Your task to perform on an android device: star an email in the gmail app Image 0: 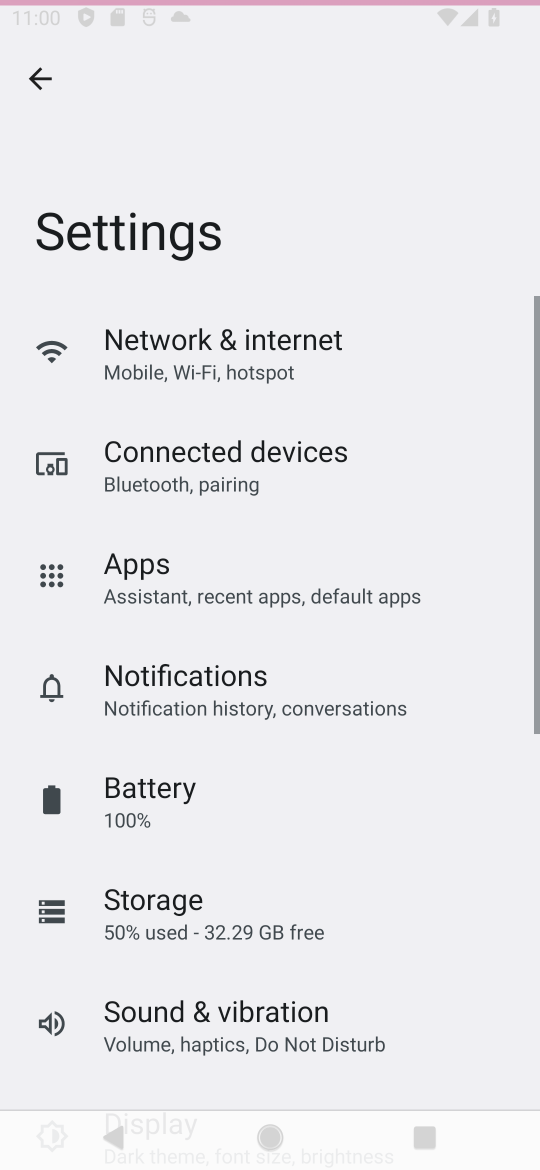
Step 0: press home button
Your task to perform on an android device: star an email in the gmail app Image 1: 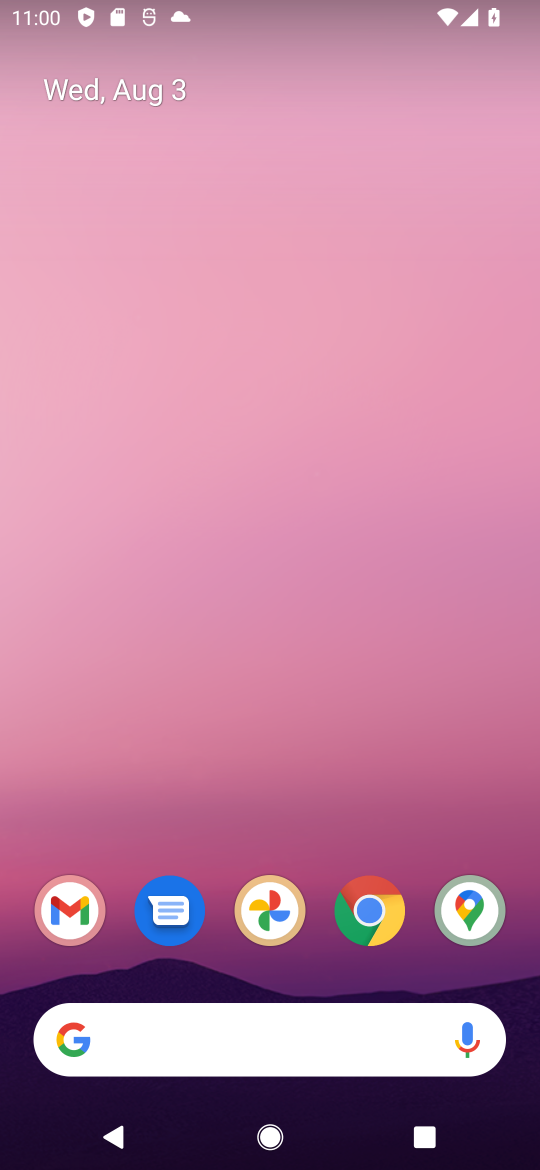
Step 1: click (64, 904)
Your task to perform on an android device: star an email in the gmail app Image 2: 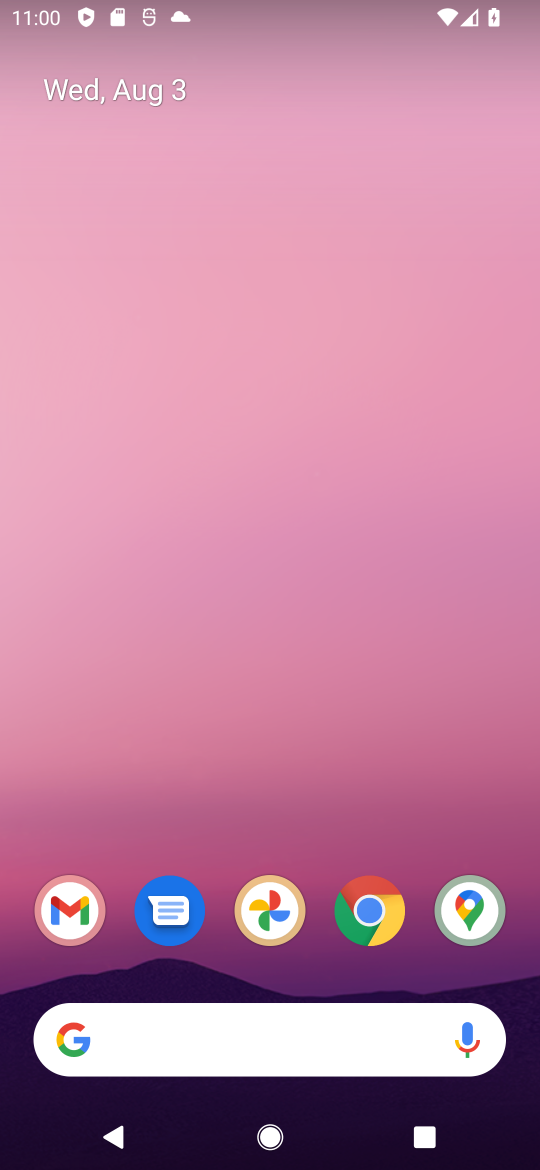
Step 2: click (70, 894)
Your task to perform on an android device: star an email in the gmail app Image 3: 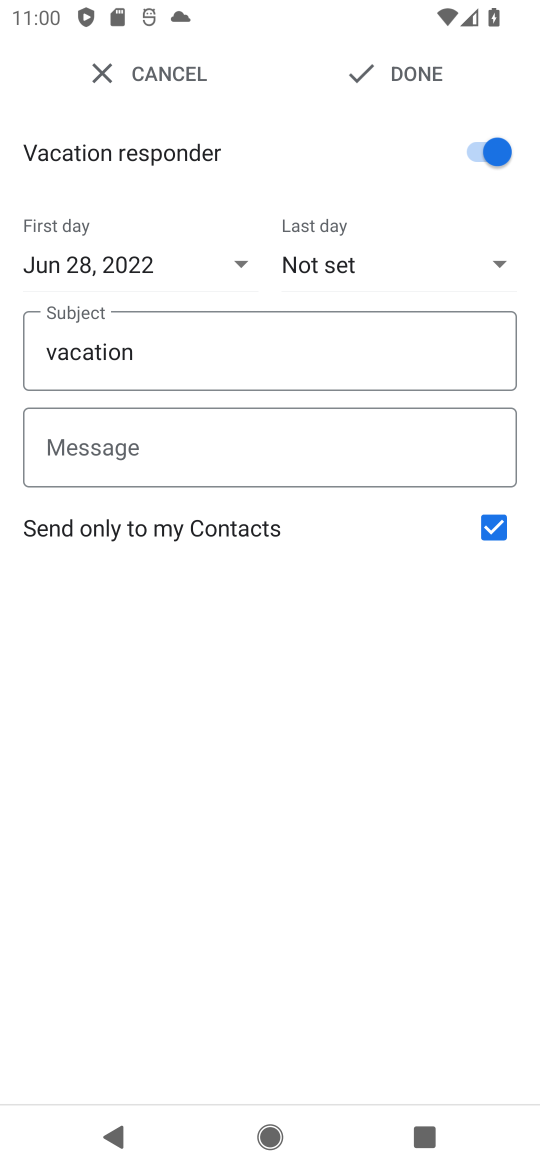
Step 3: press home button
Your task to perform on an android device: star an email in the gmail app Image 4: 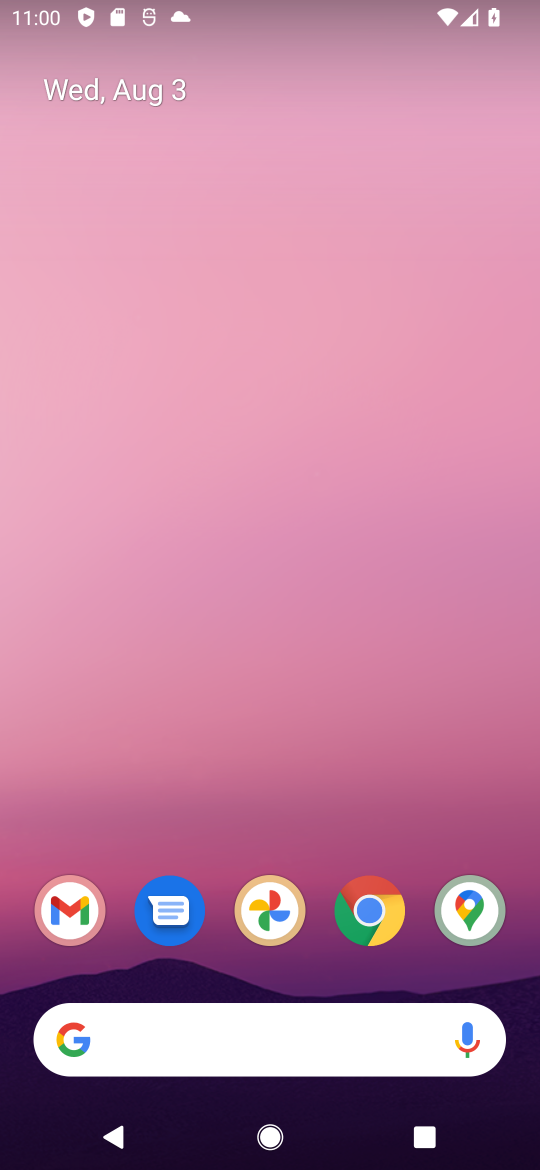
Step 4: click (61, 907)
Your task to perform on an android device: star an email in the gmail app Image 5: 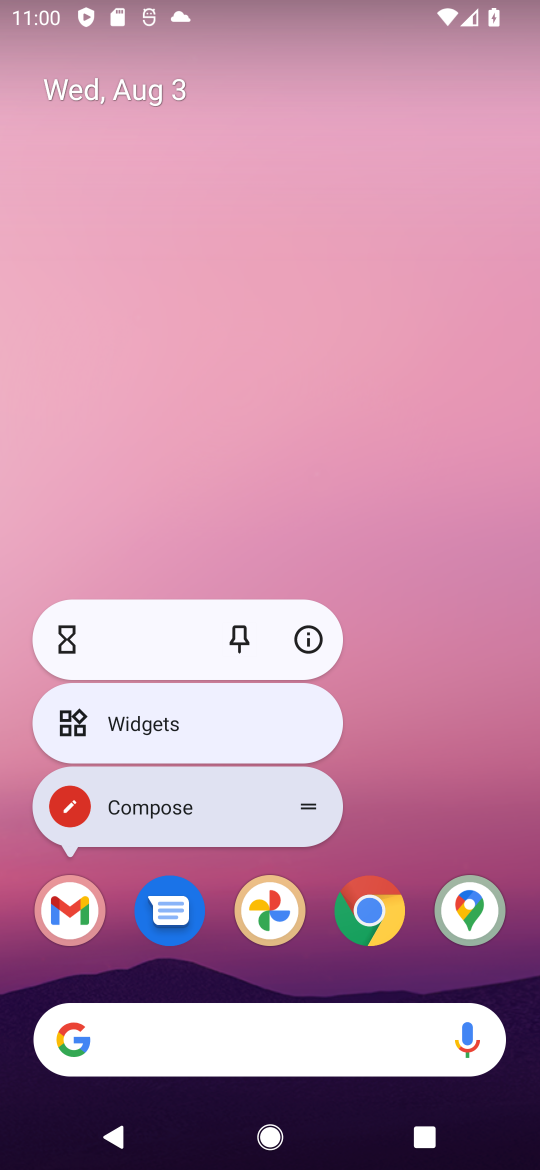
Step 5: click (82, 874)
Your task to perform on an android device: star an email in the gmail app Image 6: 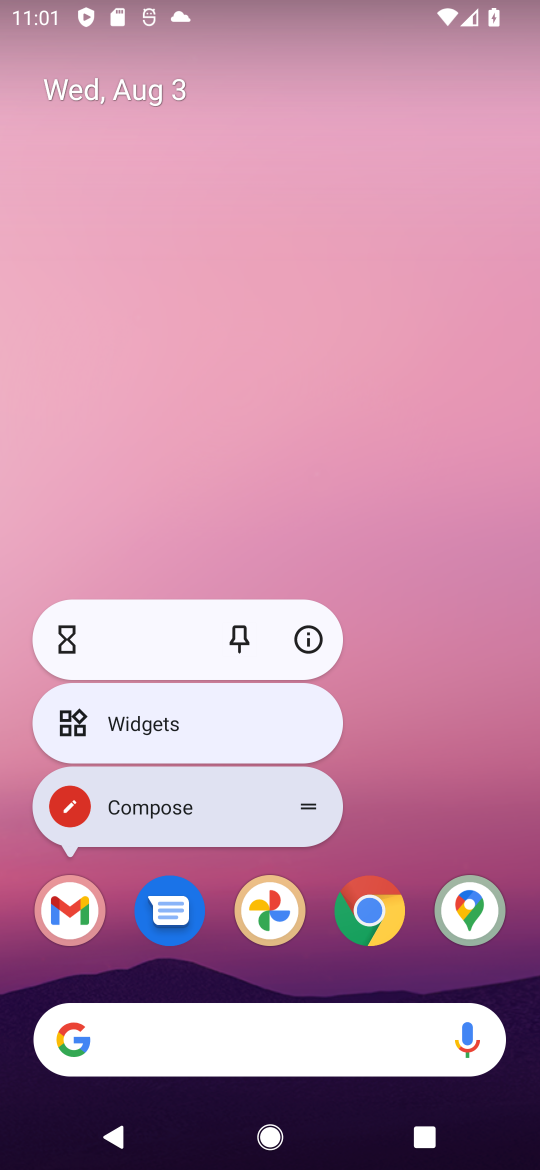
Step 6: click (72, 908)
Your task to perform on an android device: star an email in the gmail app Image 7: 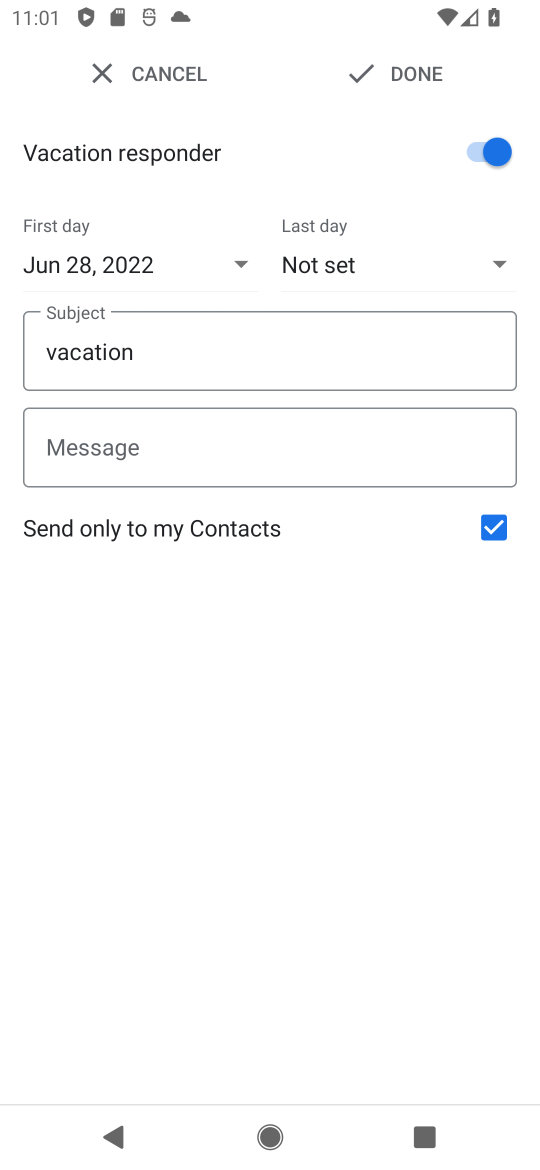
Step 7: press back button
Your task to perform on an android device: star an email in the gmail app Image 8: 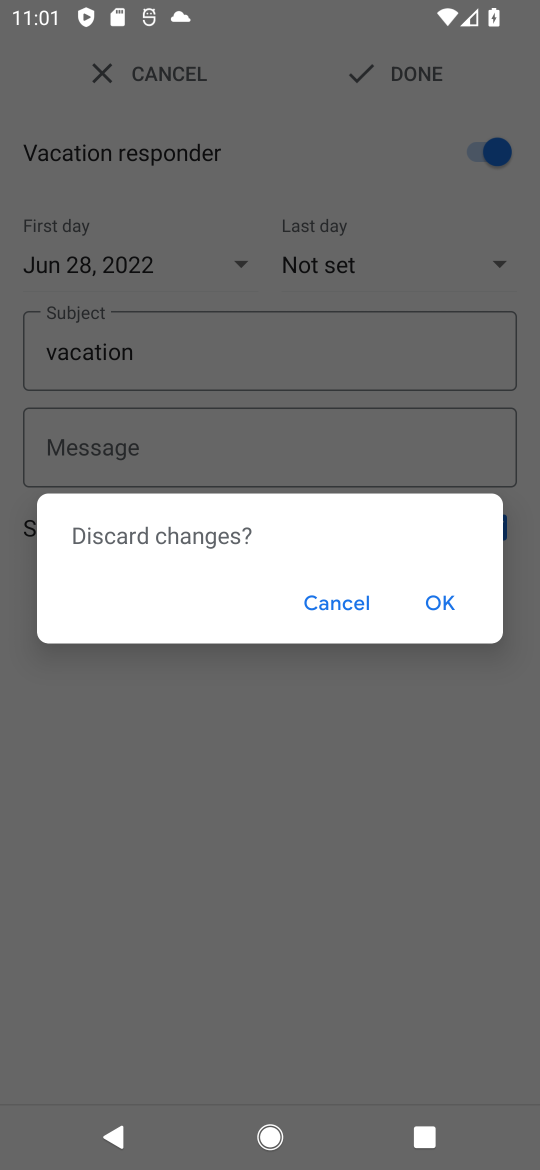
Step 8: click (446, 603)
Your task to perform on an android device: star an email in the gmail app Image 9: 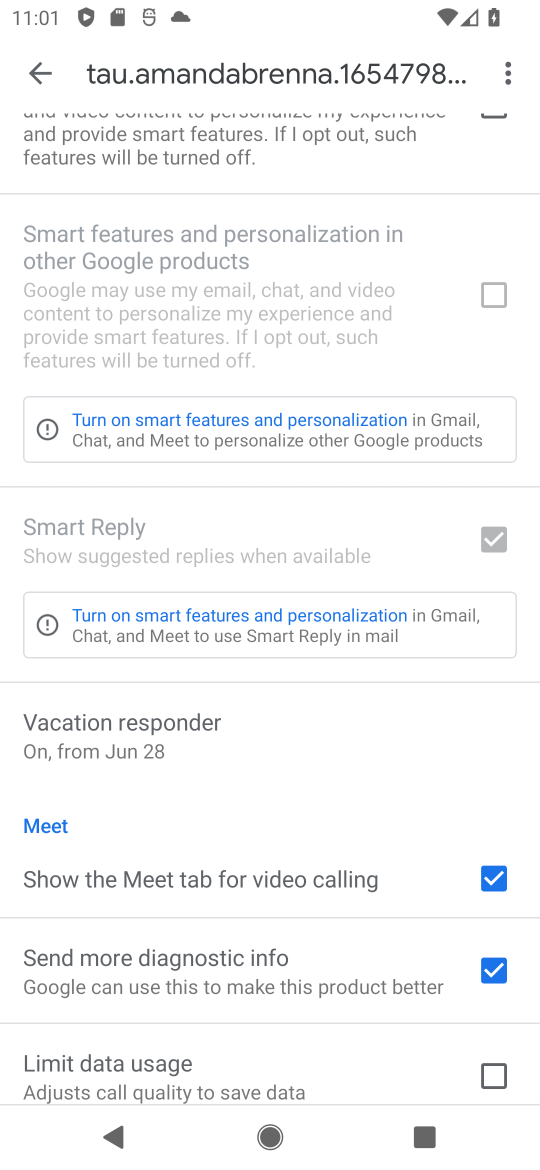
Step 9: click (37, 76)
Your task to perform on an android device: star an email in the gmail app Image 10: 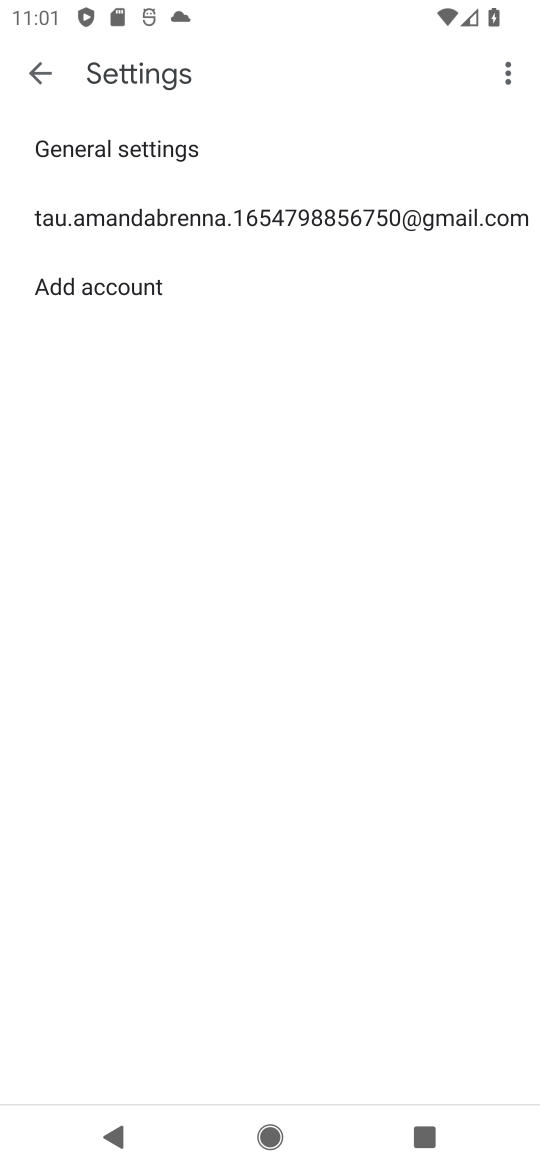
Step 10: click (37, 76)
Your task to perform on an android device: star an email in the gmail app Image 11: 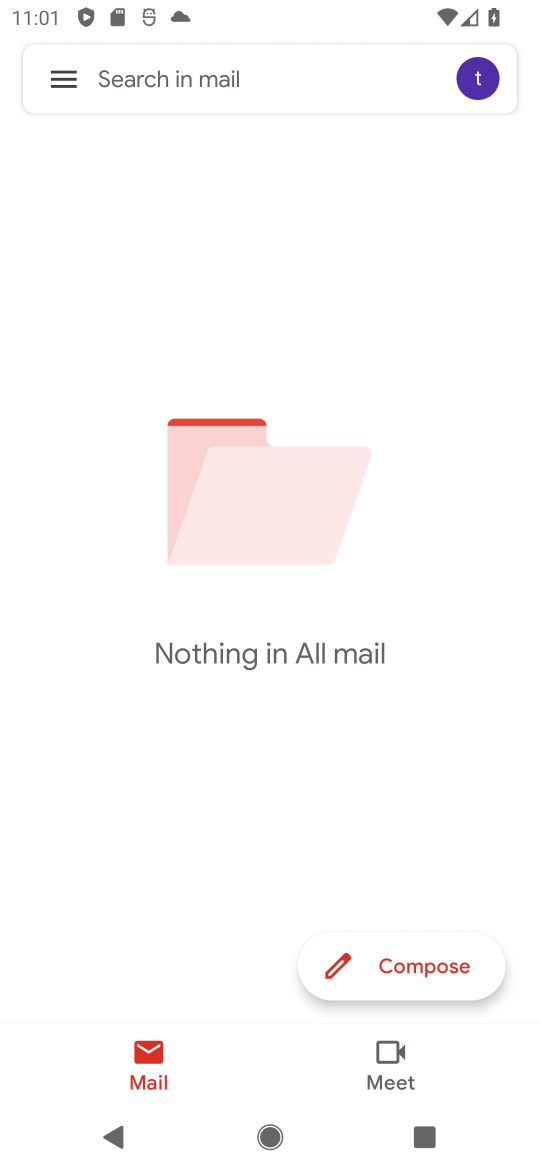
Step 11: click (64, 95)
Your task to perform on an android device: star an email in the gmail app Image 12: 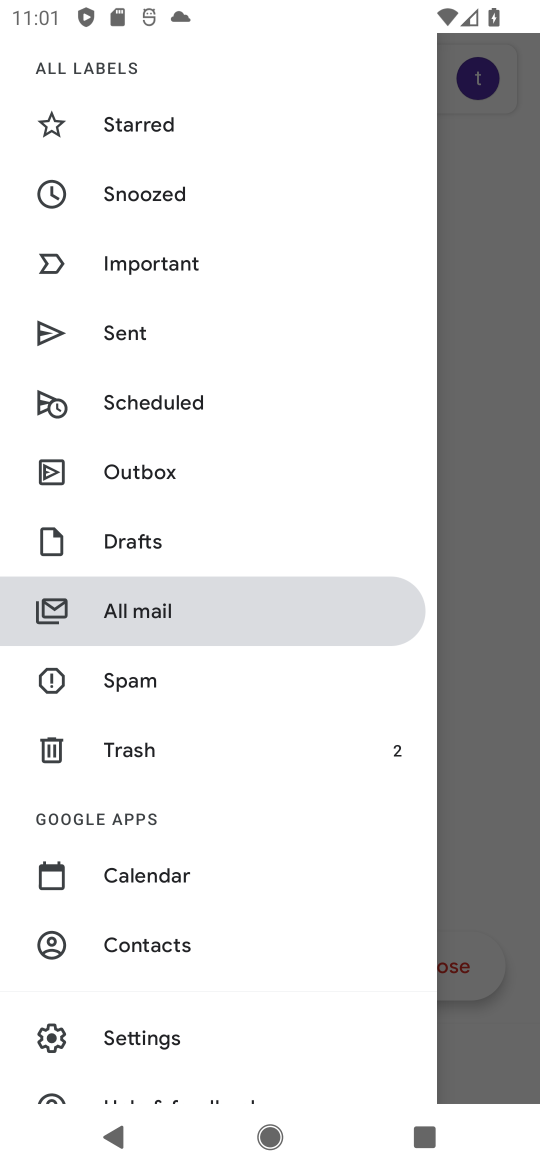
Step 12: task complete